Your task to perform on an android device: Open maps Image 0: 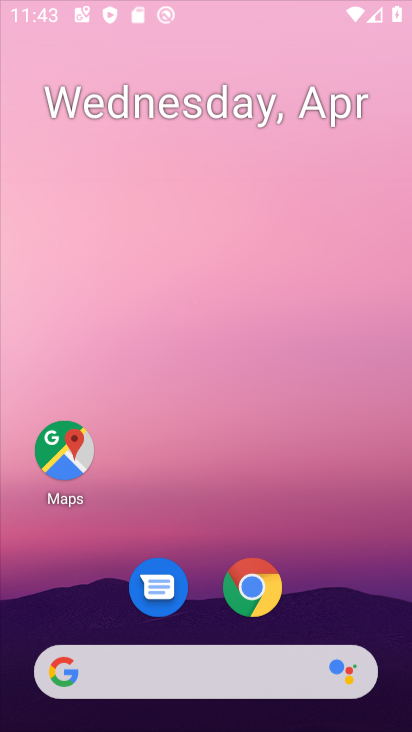
Step 0: drag from (216, 574) to (323, 13)
Your task to perform on an android device: Open maps Image 1: 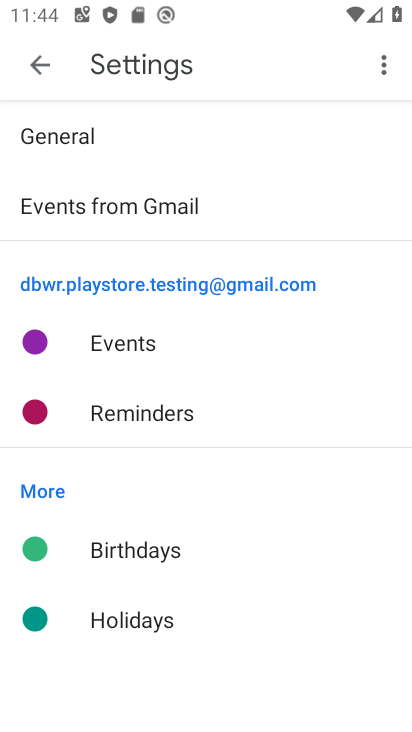
Step 1: press home button
Your task to perform on an android device: Open maps Image 2: 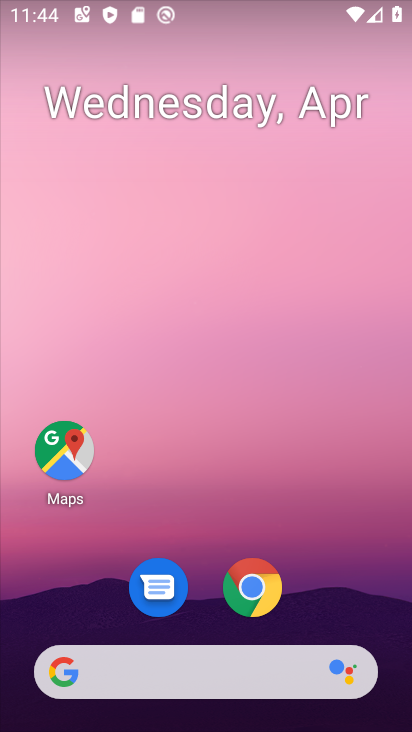
Step 2: click (75, 455)
Your task to perform on an android device: Open maps Image 3: 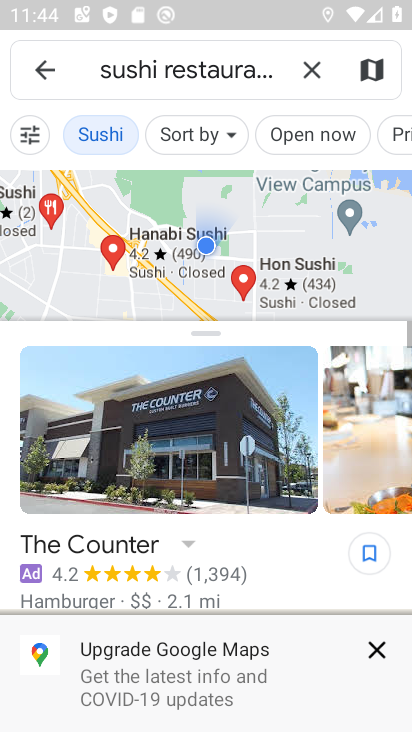
Step 3: task complete